Your task to perform on an android device: Go to internet settings Image 0: 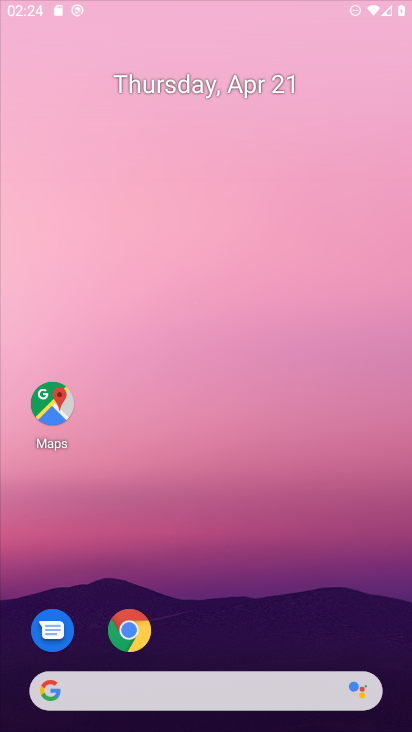
Step 0: drag from (214, 621) to (230, 95)
Your task to perform on an android device: Go to internet settings Image 1: 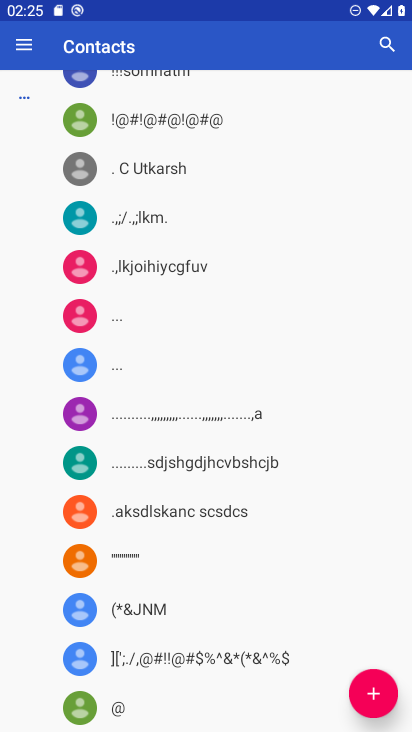
Step 1: press home button
Your task to perform on an android device: Go to internet settings Image 2: 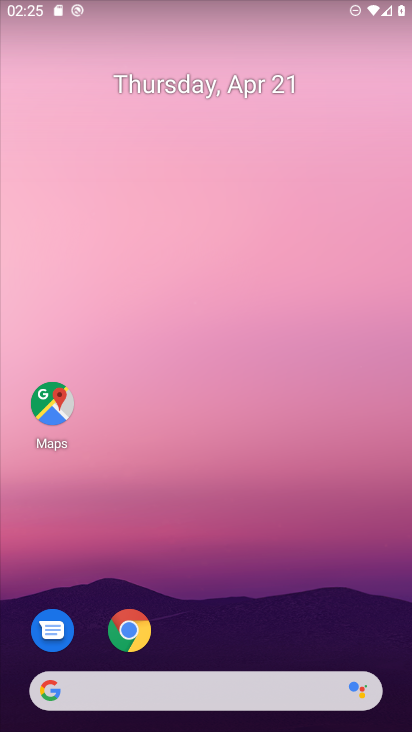
Step 2: drag from (240, 621) to (246, 299)
Your task to perform on an android device: Go to internet settings Image 3: 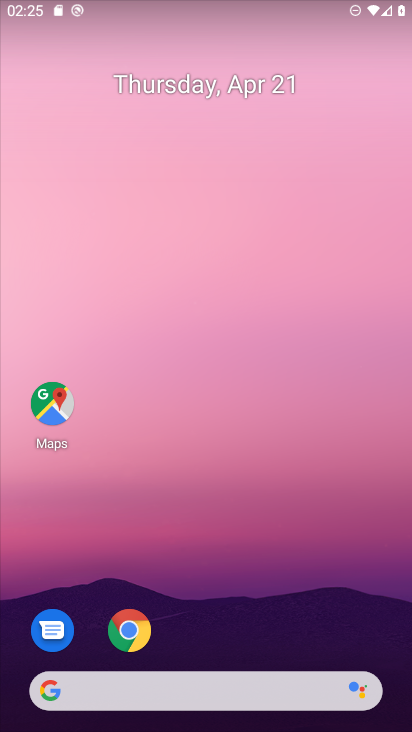
Step 3: drag from (250, 606) to (193, 157)
Your task to perform on an android device: Go to internet settings Image 4: 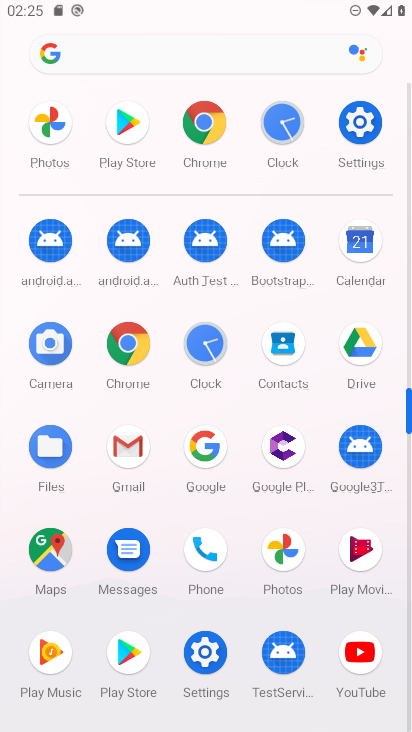
Step 4: click (220, 642)
Your task to perform on an android device: Go to internet settings Image 5: 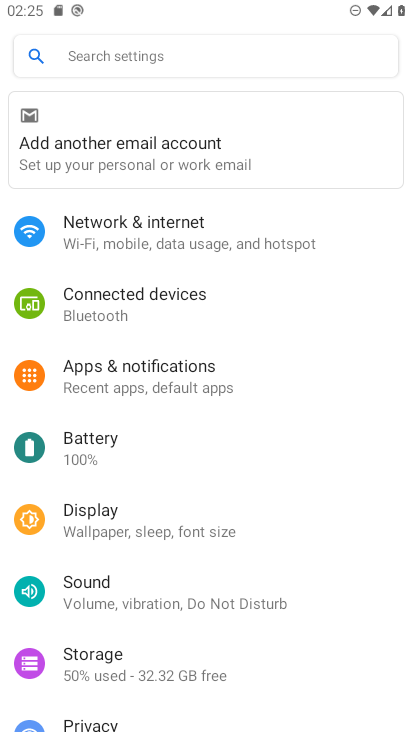
Step 5: click (216, 236)
Your task to perform on an android device: Go to internet settings Image 6: 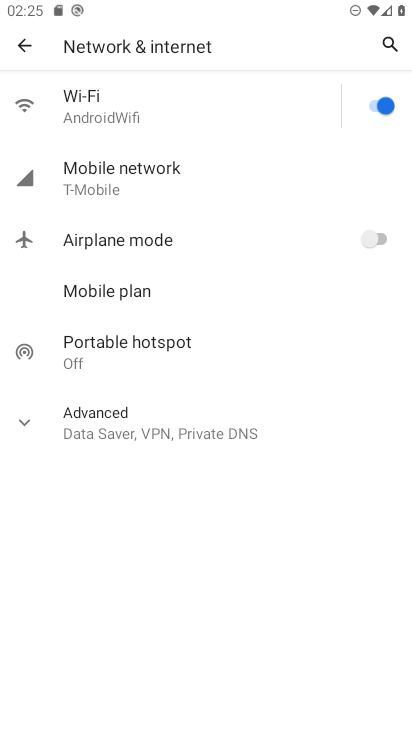
Step 6: task complete